Your task to perform on an android device: turn off priority inbox in the gmail app Image 0: 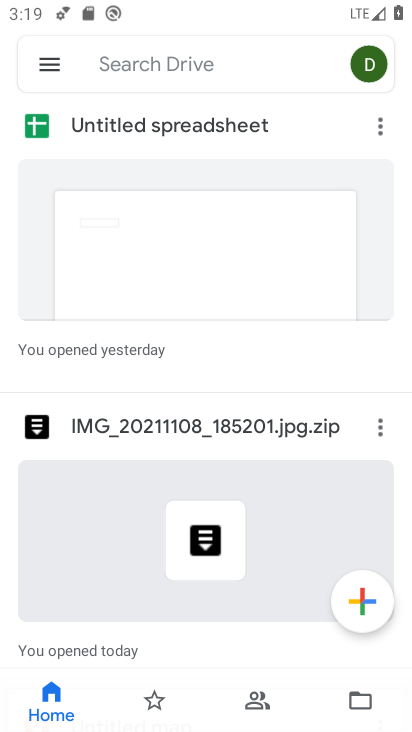
Step 0: press home button
Your task to perform on an android device: turn off priority inbox in the gmail app Image 1: 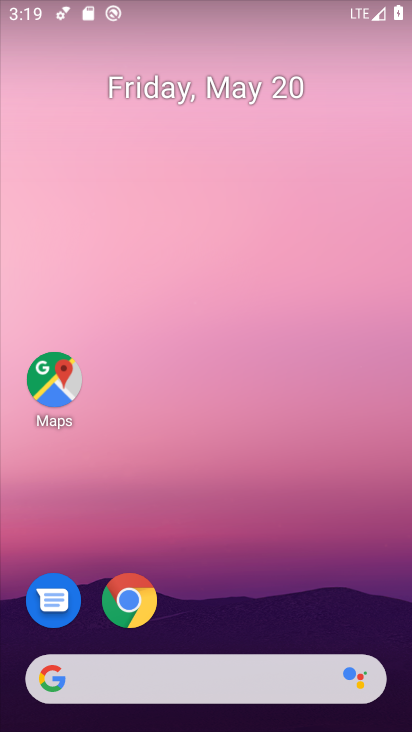
Step 1: drag from (364, 602) to (350, 183)
Your task to perform on an android device: turn off priority inbox in the gmail app Image 2: 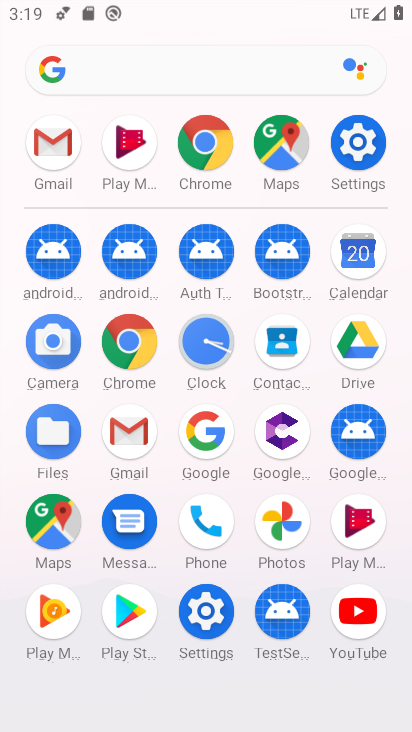
Step 2: click (141, 446)
Your task to perform on an android device: turn off priority inbox in the gmail app Image 3: 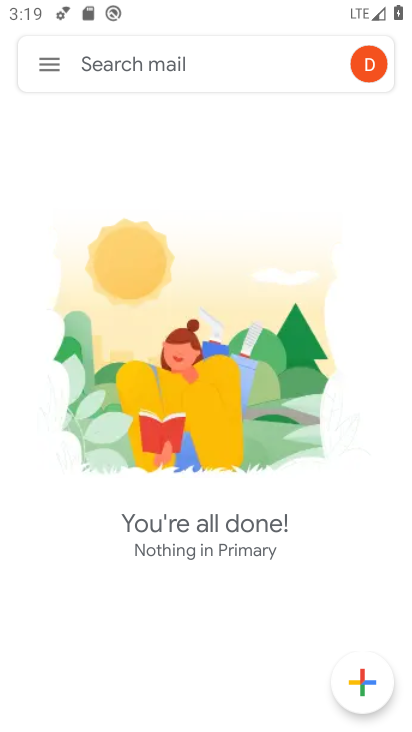
Step 3: click (48, 78)
Your task to perform on an android device: turn off priority inbox in the gmail app Image 4: 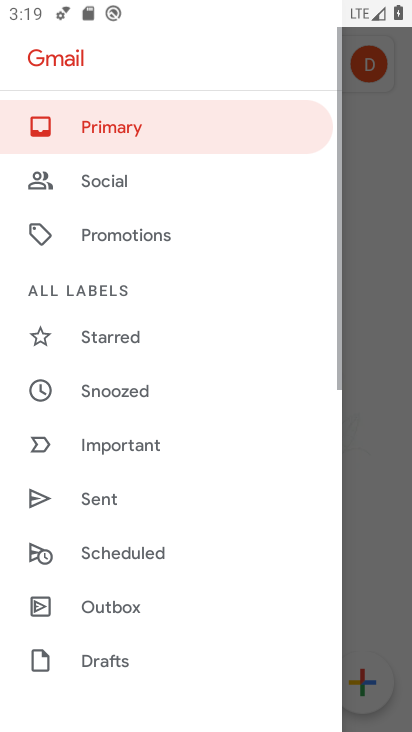
Step 4: drag from (260, 505) to (273, 314)
Your task to perform on an android device: turn off priority inbox in the gmail app Image 5: 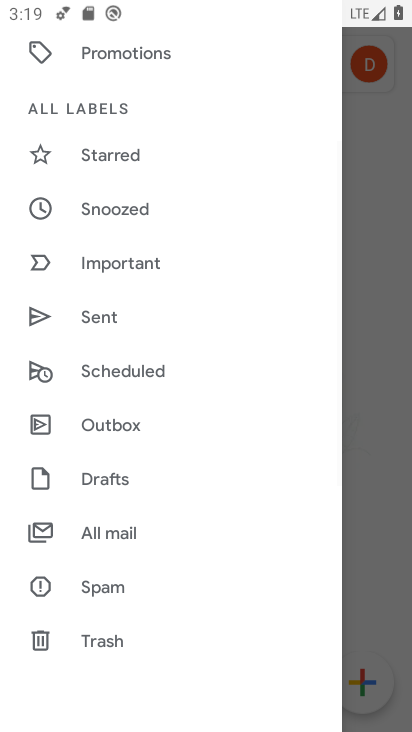
Step 5: drag from (271, 545) to (260, 361)
Your task to perform on an android device: turn off priority inbox in the gmail app Image 6: 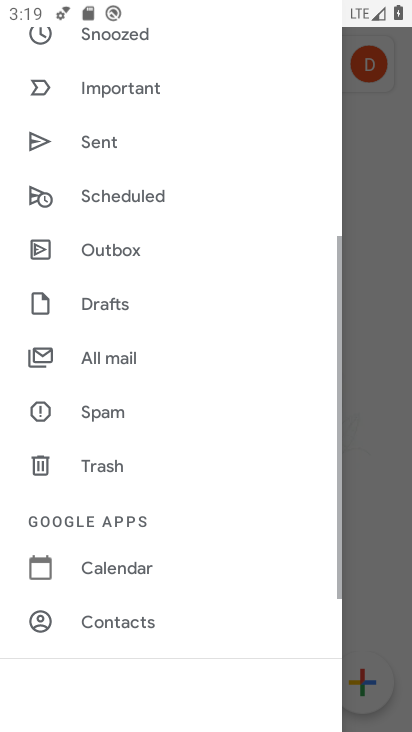
Step 6: drag from (243, 528) to (243, 417)
Your task to perform on an android device: turn off priority inbox in the gmail app Image 7: 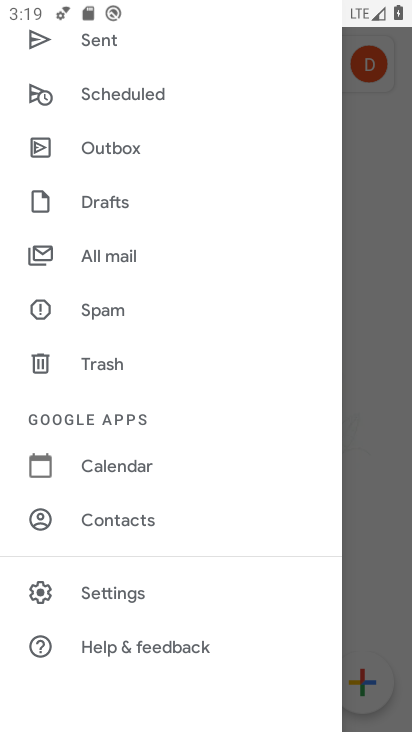
Step 7: click (161, 602)
Your task to perform on an android device: turn off priority inbox in the gmail app Image 8: 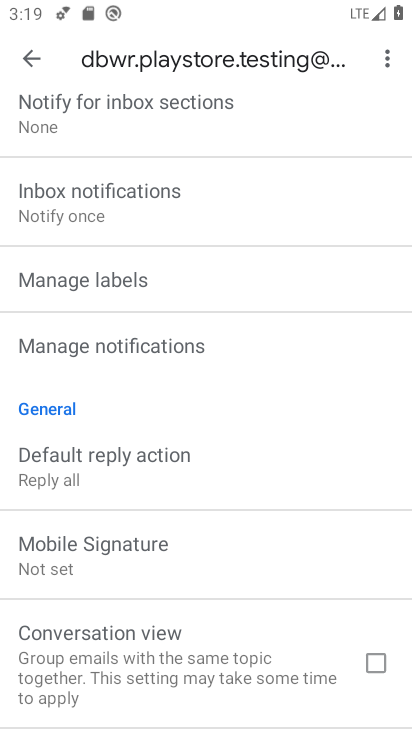
Step 8: drag from (305, 312) to (299, 439)
Your task to perform on an android device: turn off priority inbox in the gmail app Image 9: 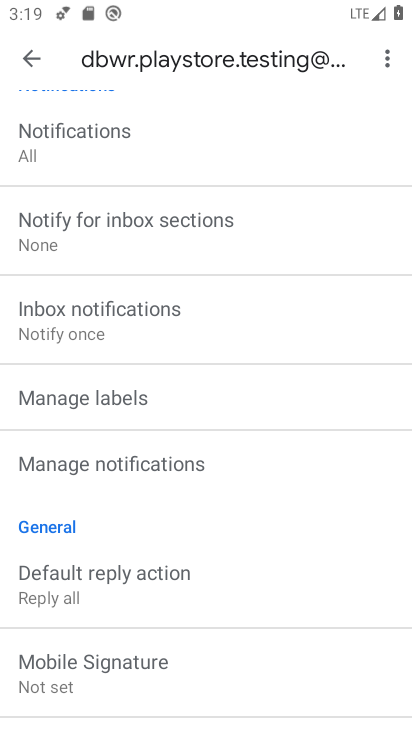
Step 9: drag from (307, 279) to (307, 410)
Your task to perform on an android device: turn off priority inbox in the gmail app Image 10: 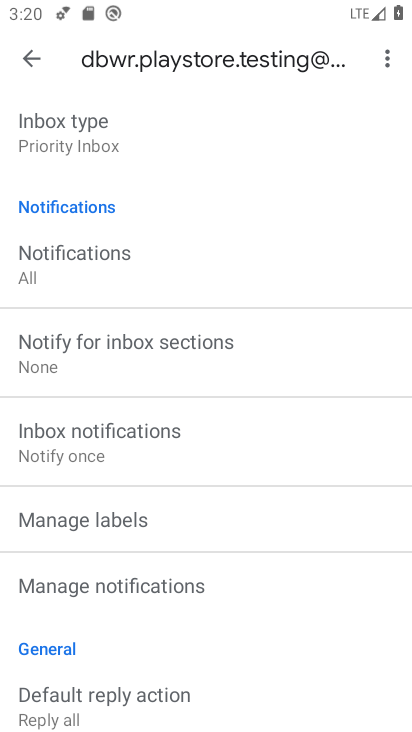
Step 10: drag from (297, 273) to (298, 394)
Your task to perform on an android device: turn off priority inbox in the gmail app Image 11: 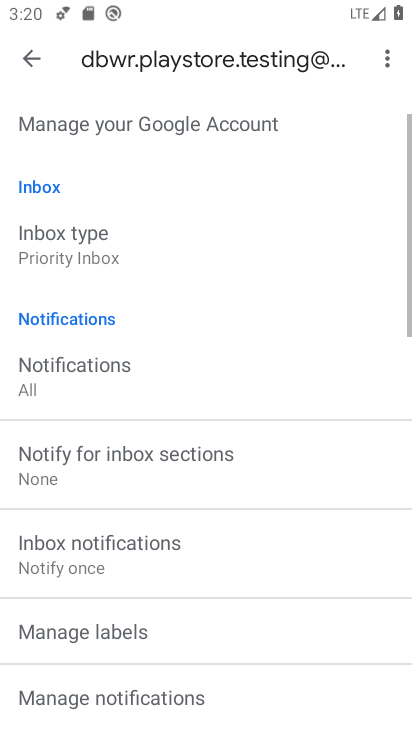
Step 11: drag from (299, 245) to (292, 380)
Your task to perform on an android device: turn off priority inbox in the gmail app Image 12: 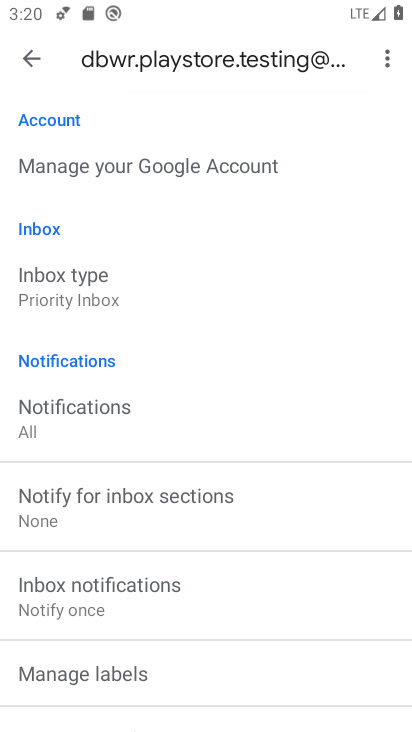
Step 12: click (312, 336)
Your task to perform on an android device: turn off priority inbox in the gmail app Image 13: 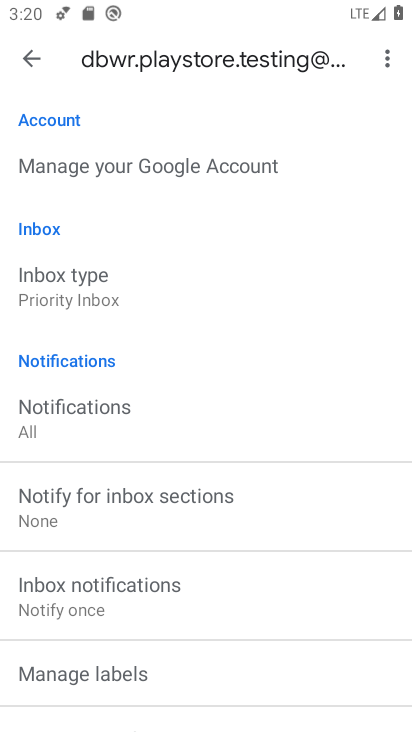
Step 13: drag from (305, 459) to (299, 357)
Your task to perform on an android device: turn off priority inbox in the gmail app Image 14: 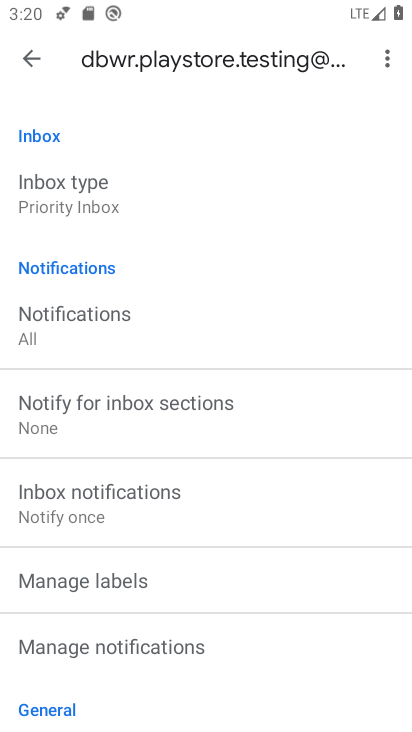
Step 14: click (79, 208)
Your task to perform on an android device: turn off priority inbox in the gmail app Image 15: 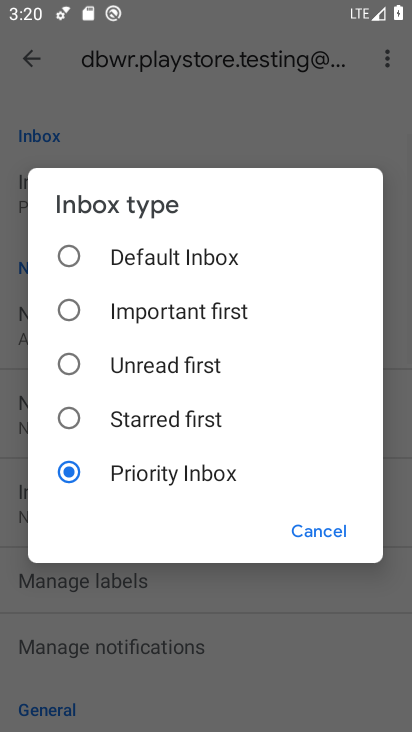
Step 15: click (163, 253)
Your task to perform on an android device: turn off priority inbox in the gmail app Image 16: 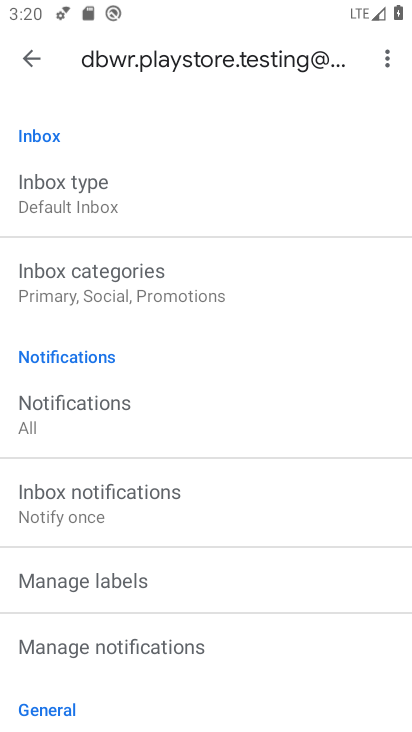
Step 16: task complete